Your task to perform on an android device: Open Wikipedia Image 0: 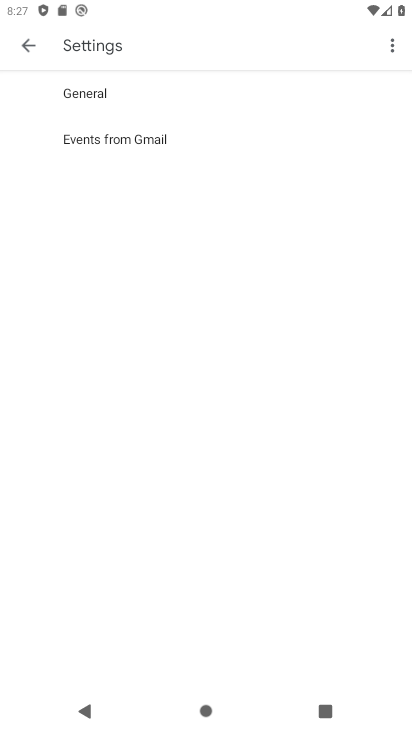
Step 0: press home button
Your task to perform on an android device: Open Wikipedia Image 1: 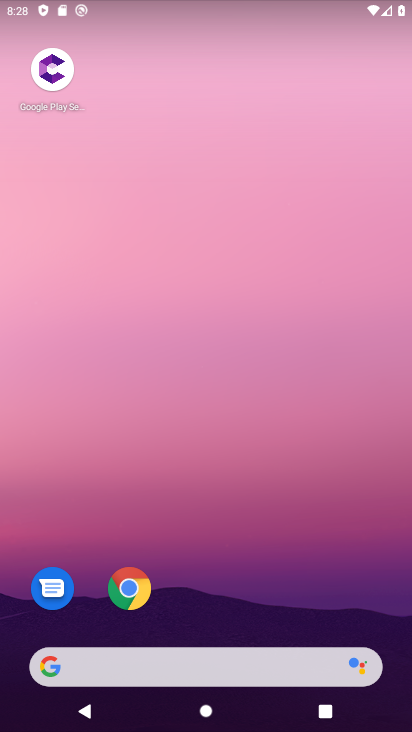
Step 1: click (136, 588)
Your task to perform on an android device: Open Wikipedia Image 2: 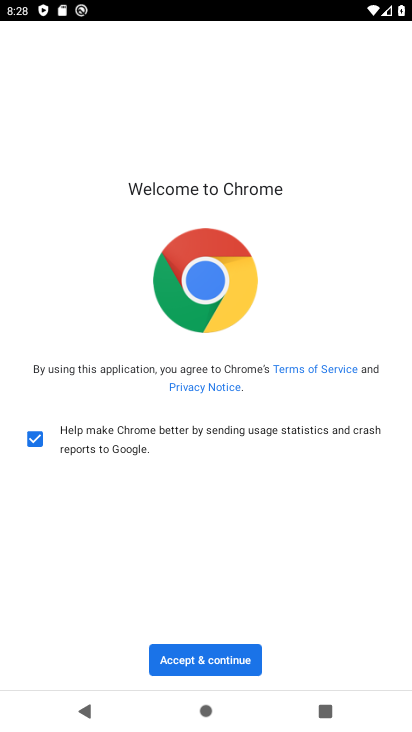
Step 2: click (225, 648)
Your task to perform on an android device: Open Wikipedia Image 3: 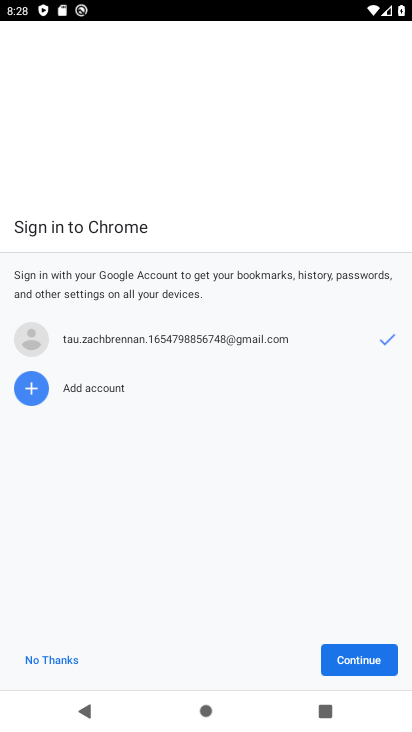
Step 3: click (348, 655)
Your task to perform on an android device: Open Wikipedia Image 4: 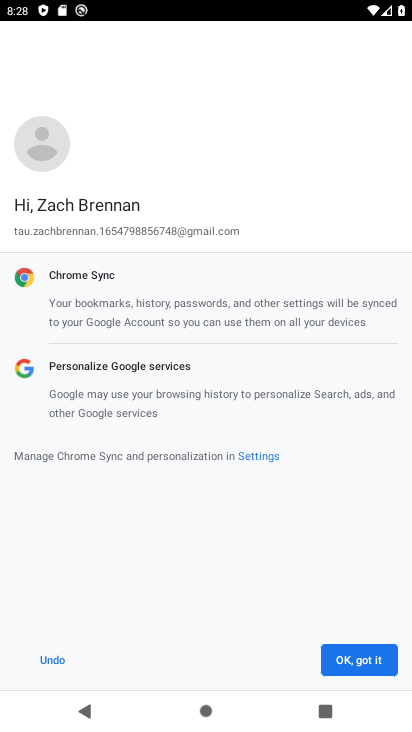
Step 4: click (375, 653)
Your task to perform on an android device: Open Wikipedia Image 5: 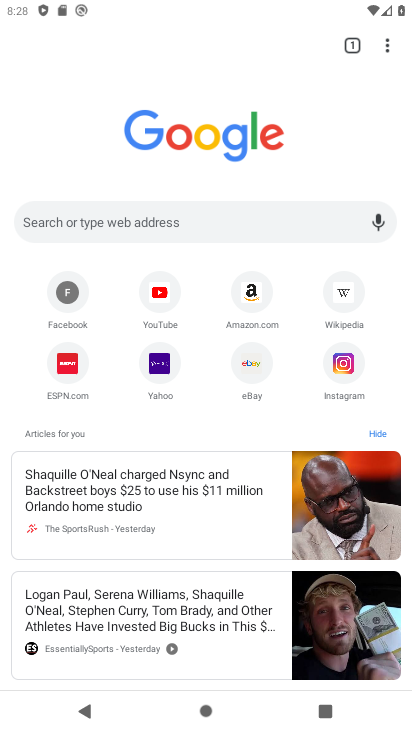
Step 5: click (157, 226)
Your task to perform on an android device: Open Wikipedia Image 6: 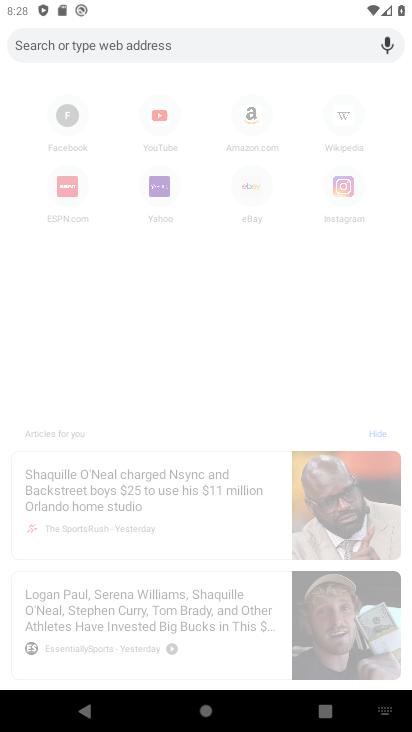
Step 6: type "Wikipedia"
Your task to perform on an android device: Open Wikipedia Image 7: 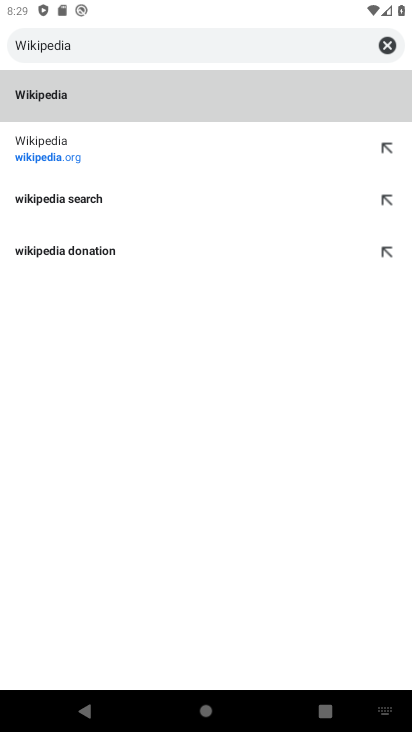
Step 7: click (82, 93)
Your task to perform on an android device: Open Wikipedia Image 8: 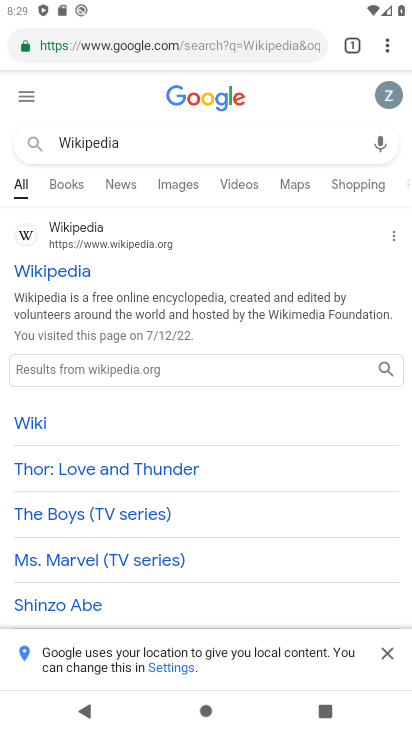
Step 8: click (38, 272)
Your task to perform on an android device: Open Wikipedia Image 9: 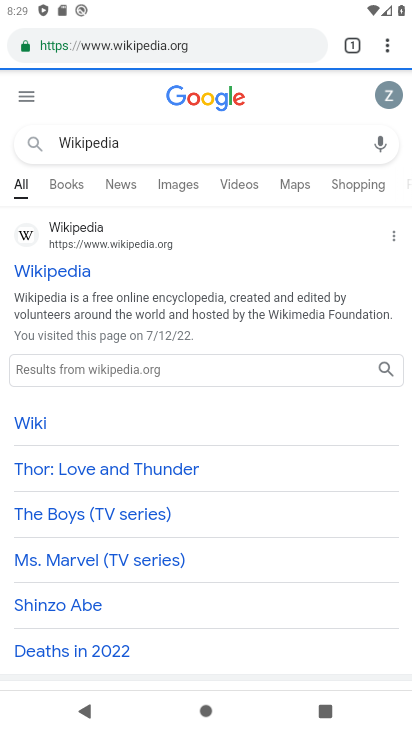
Step 9: task complete